Your task to perform on an android device: Turn off the flashlight Image 0: 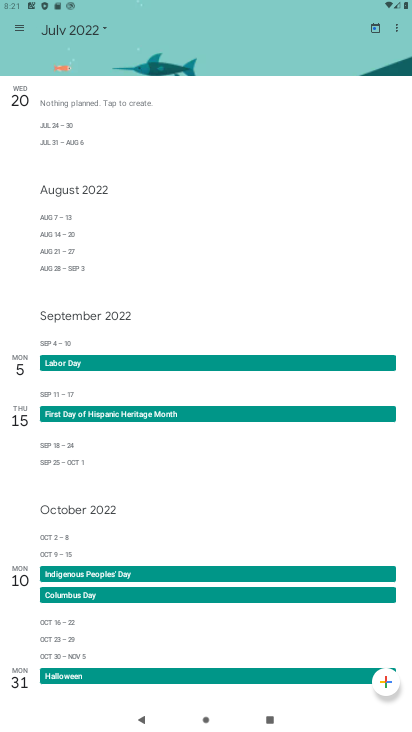
Step 0: press home button
Your task to perform on an android device: Turn off the flashlight Image 1: 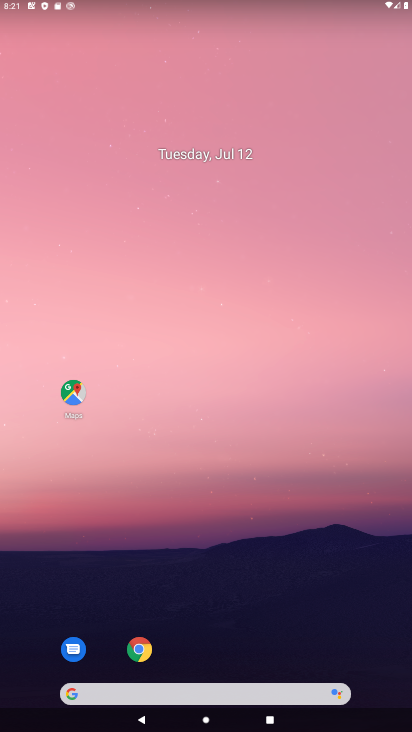
Step 1: drag from (185, 668) to (226, 160)
Your task to perform on an android device: Turn off the flashlight Image 2: 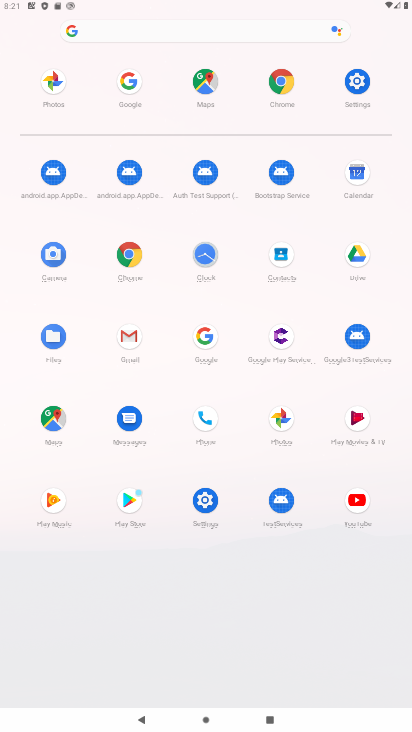
Step 2: click (352, 82)
Your task to perform on an android device: Turn off the flashlight Image 3: 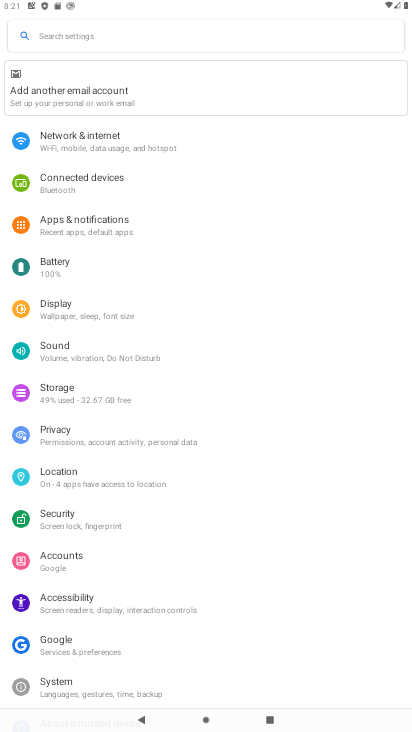
Step 3: click (143, 33)
Your task to perform on an android device: Turn off the flashlight Image 4: 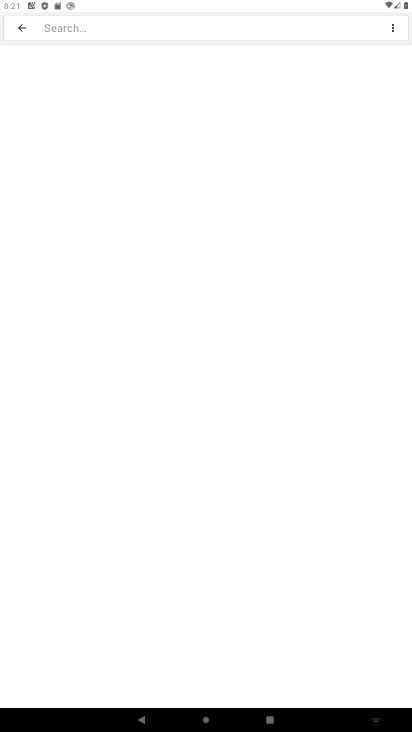
Step 4: type "flash light"
Your task to perform on an android device: Turn off the flashlight Image 5: 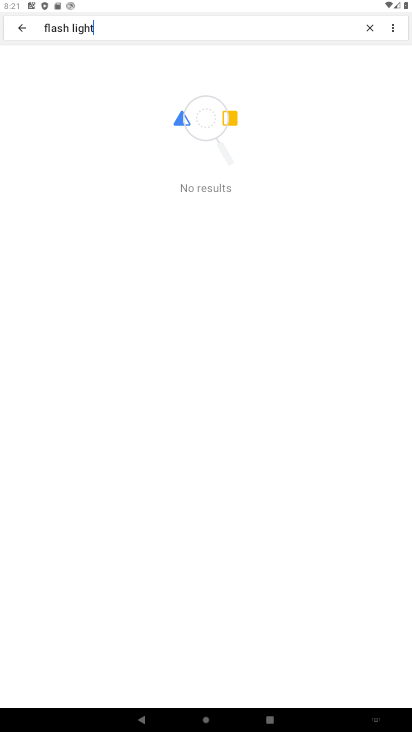
Step 5: task complete